Your task to perform on an android device: Open the phone app and click the voicemail tab. Image 0: 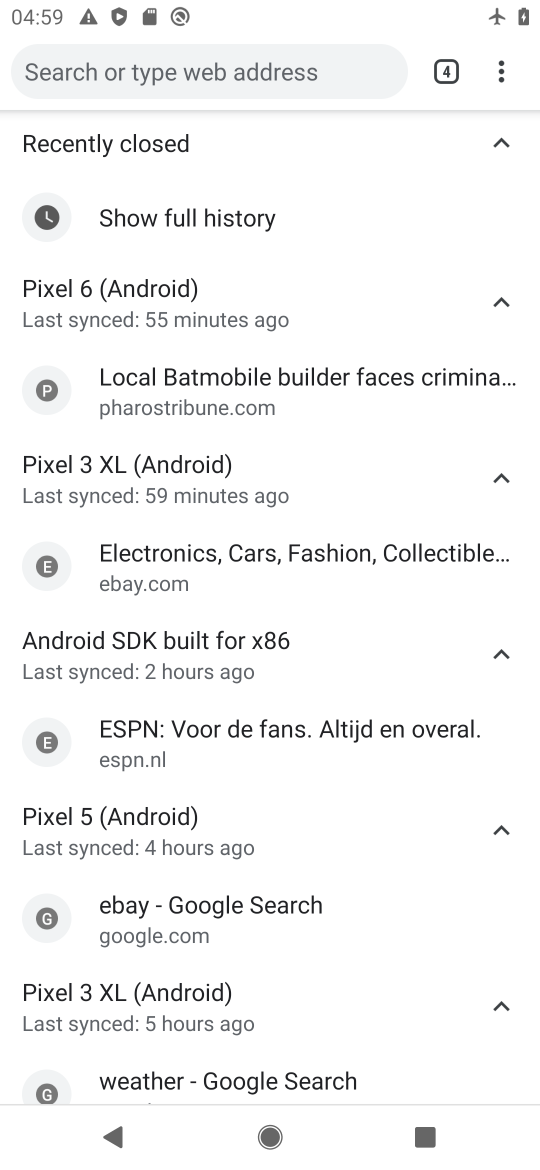
Step 0: press back button
Your task to perform on an android device: Open the phone app and click the voicemail tab. Image 1: 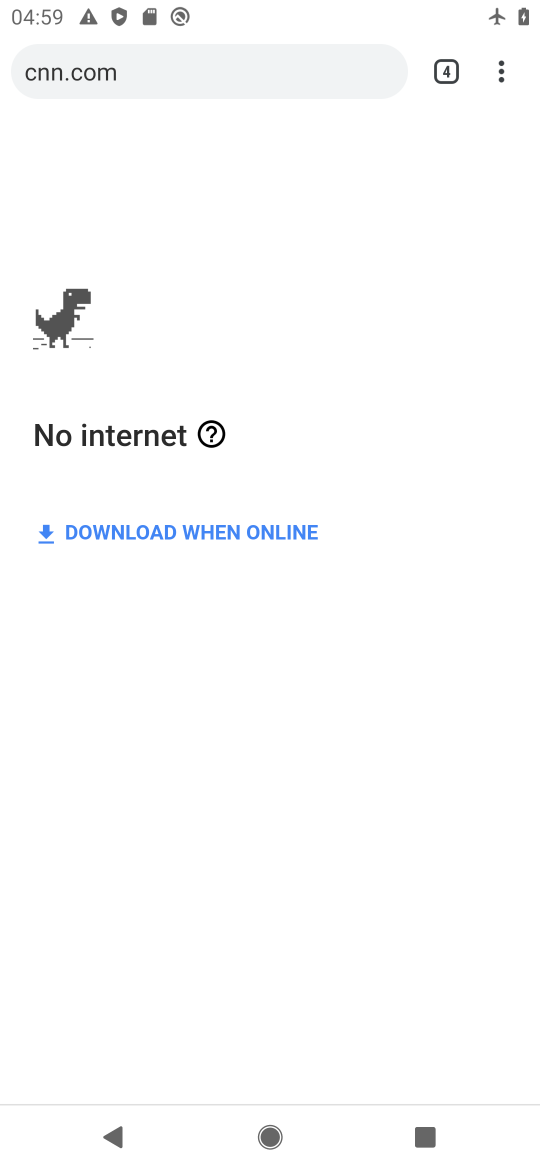
Step 1: press home button
Your task to perform on an android device: Open the phone app and click the voicemail tab. Image 2: 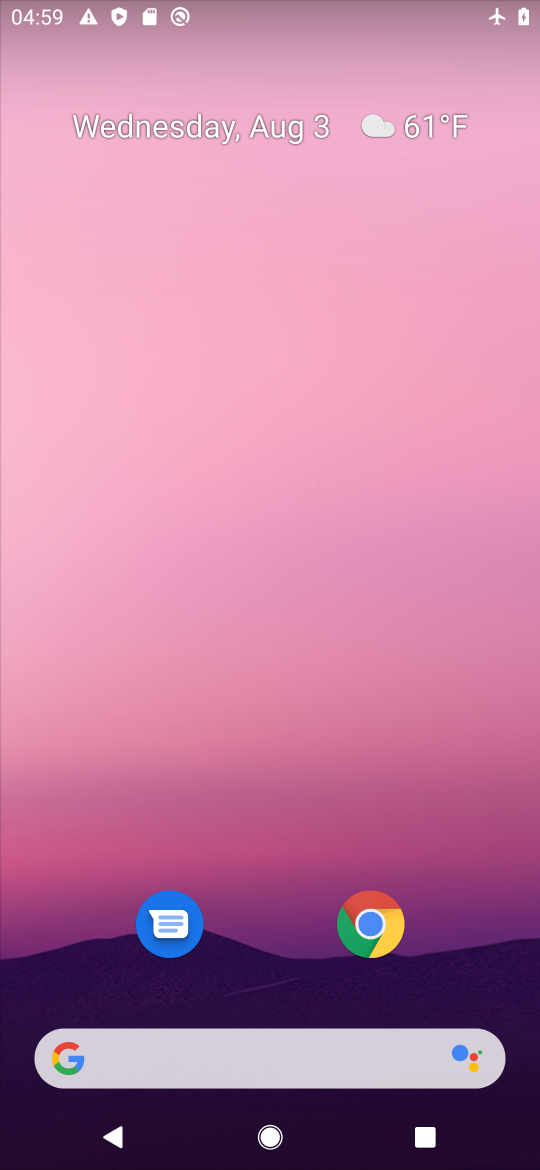
Step 2: drag from (289, 952) to (207, 249)
Your task to perform on an android device: Open the phone app and click the voicemail tab. Image 3: 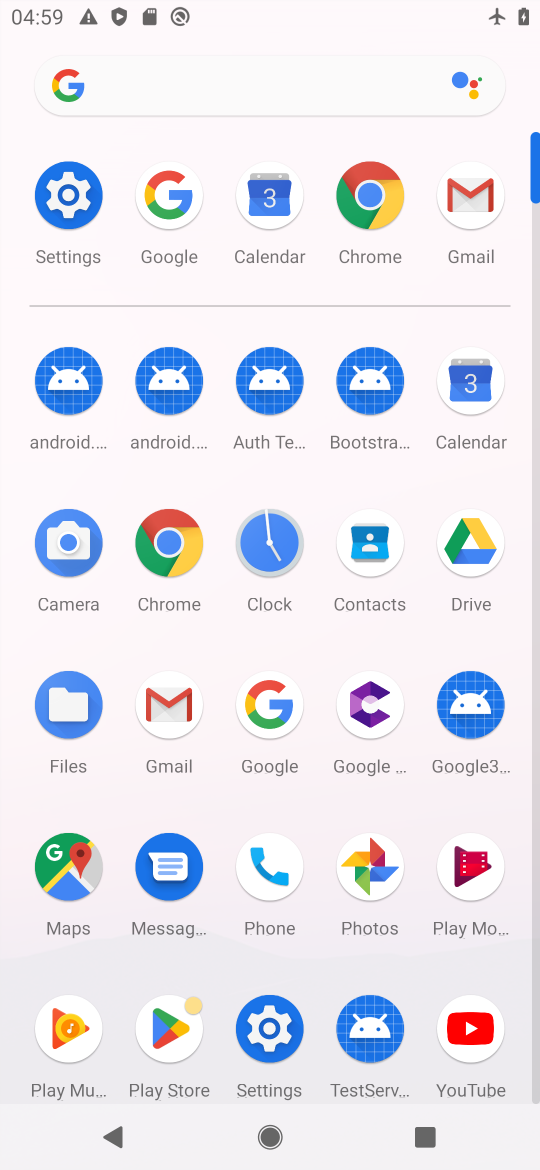
Step 3: click (286, 893)
Your task to perform on an android device: Open the phone app and click the voicemail tab. Image 4: 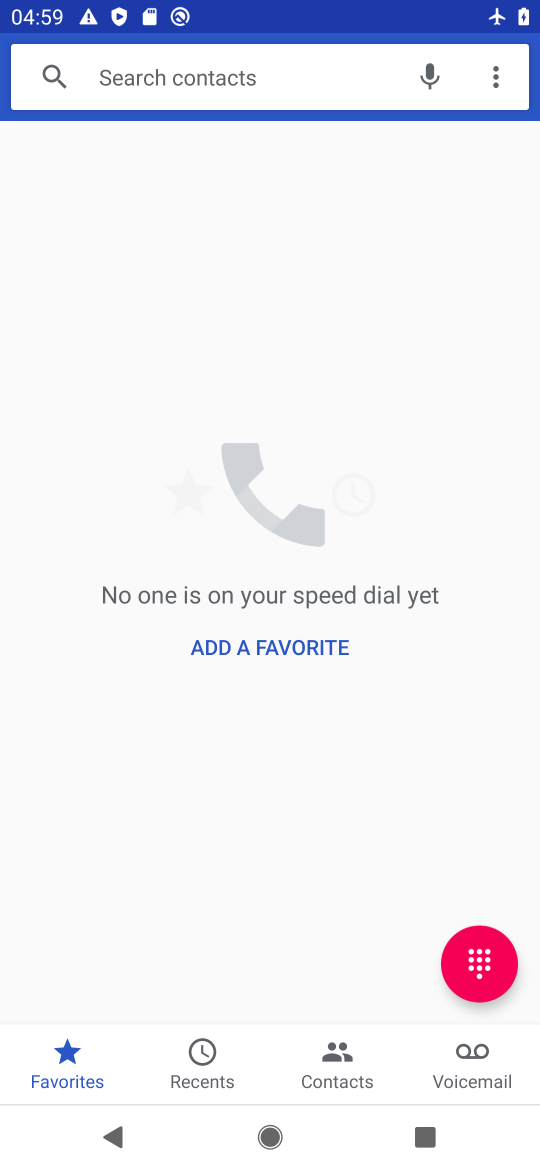
Step 4: click (463, 1063)
Your task to perform on an android device: Open the phone app and click the voicemail tab. Image 5: 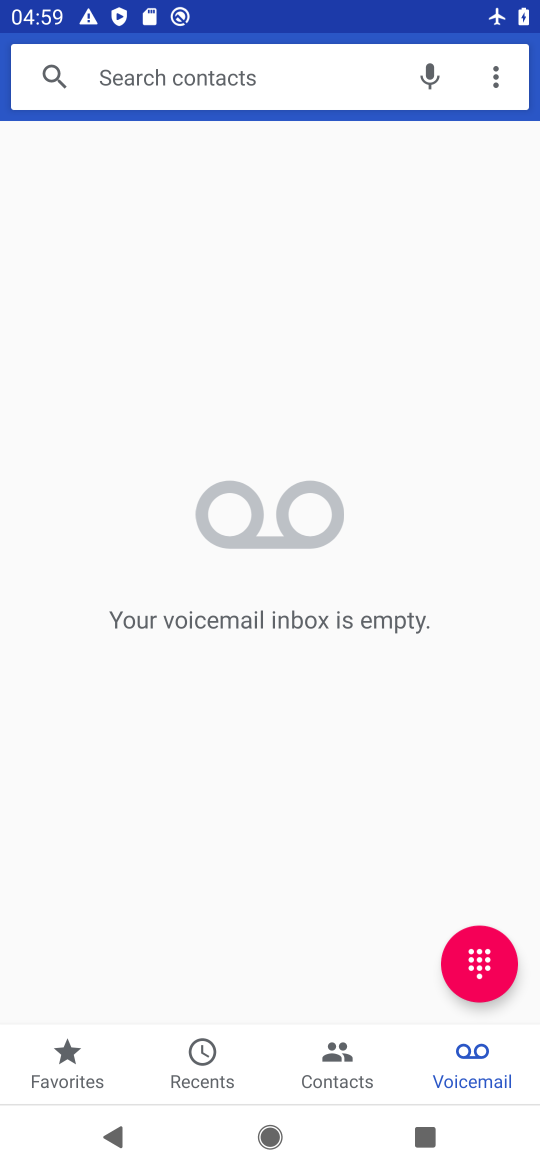
Step 5: task complete